Your task to perform on an android device: clear all cookies in the chrome app Image 0: 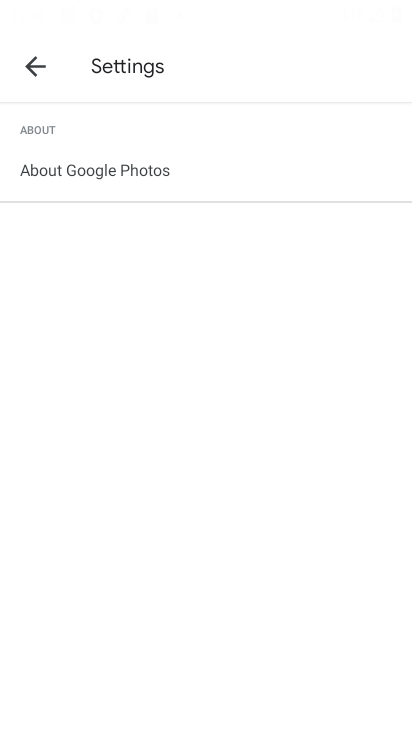
Step 0: press home button
Your task to perform on an android device: clear all cookies in the chrome app Image 1: 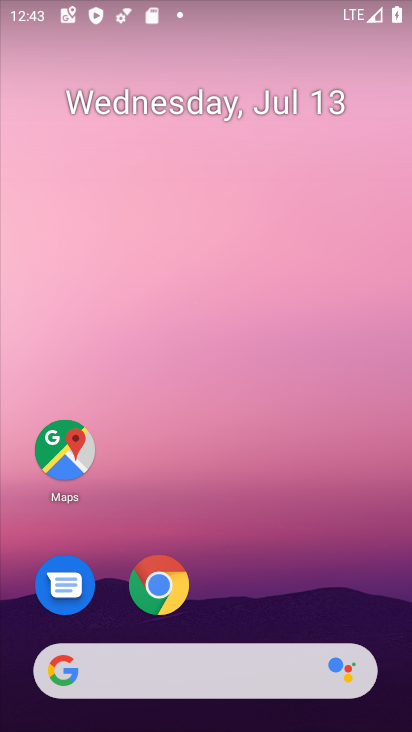
Step 1: click (159, 583)
Your task to perform on an android device: clear all cookies in the chrome app Image 2: 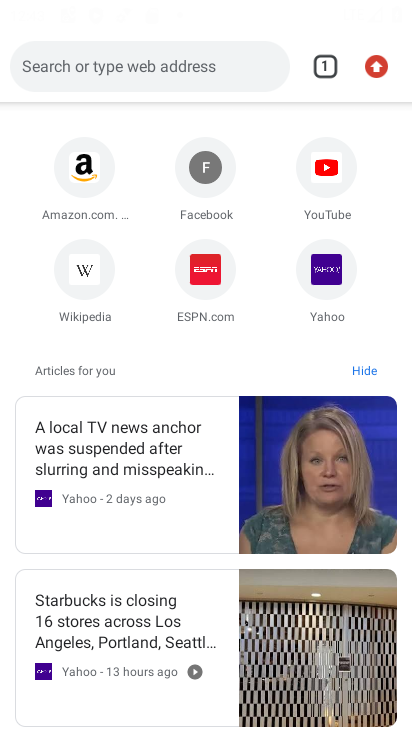
Step 2: click (373, 57)
Your task to perform on an android device: clear all cookies in the chrome app Image 3: 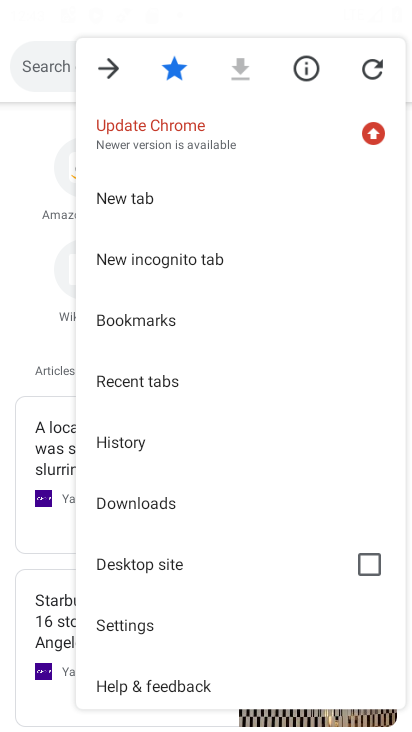
Step 3: click (120, 447)
Your task to perform on an android device: clear all cookies in the chrome app Image 4: 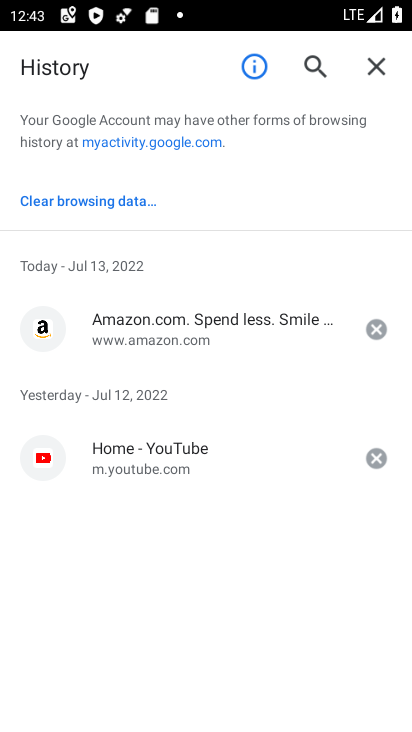
Step 4: click (65, 207)
Your task to perform on an android device: clear all cookies in the chrome app Image 5: 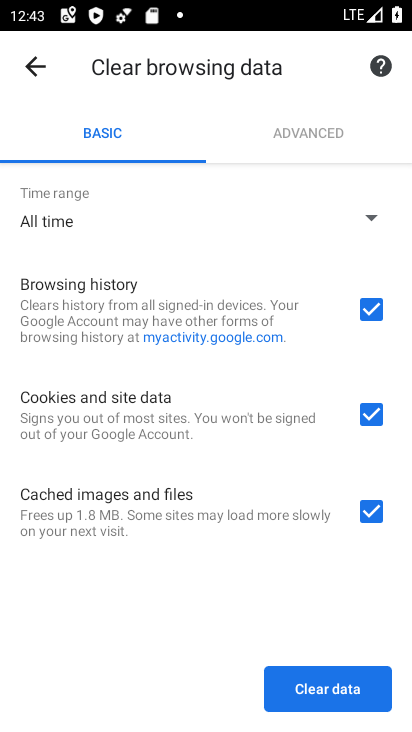
Step 5: click (376, 304)
Your task to perform on an android device: clear all cookies in the chrome app Image 6: 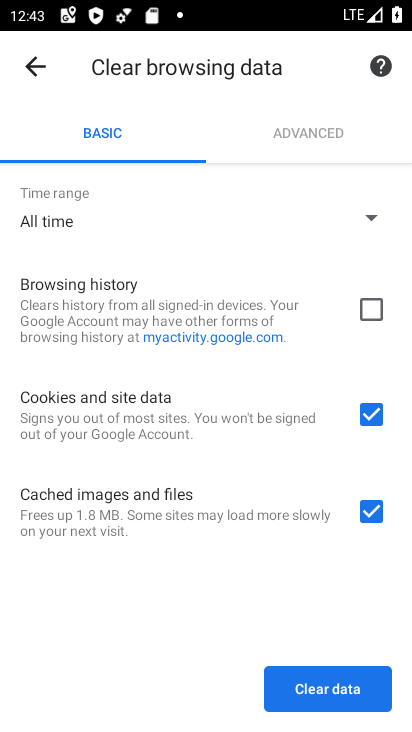
Step 6: click (370, 518)
Your task to perform on an android device: clear all cookies in the chrome app Image 7: 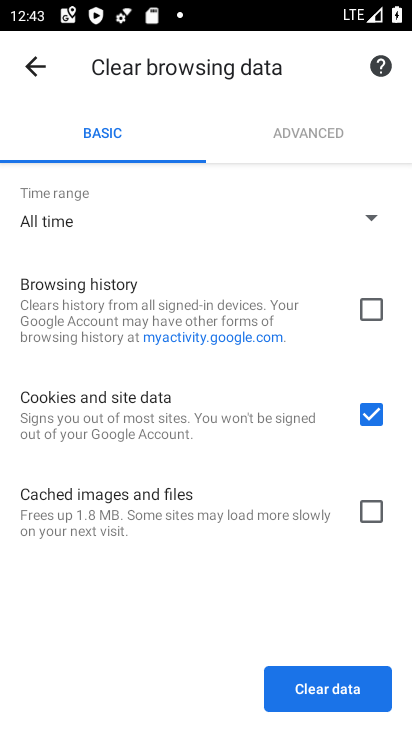
Step 7: click (280, 676)
Your task to perform on an android device: clear all cookies in the chrome app Image 8: 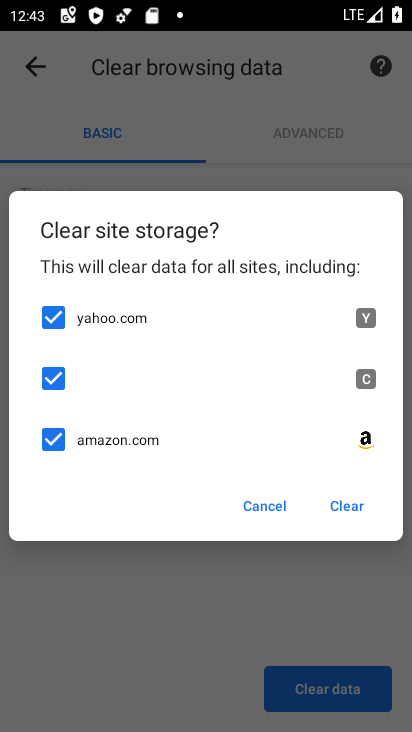
Step 8: click (344, 515)
Your task to perform on an android device: clear all cookies in the chrome app Image 9: 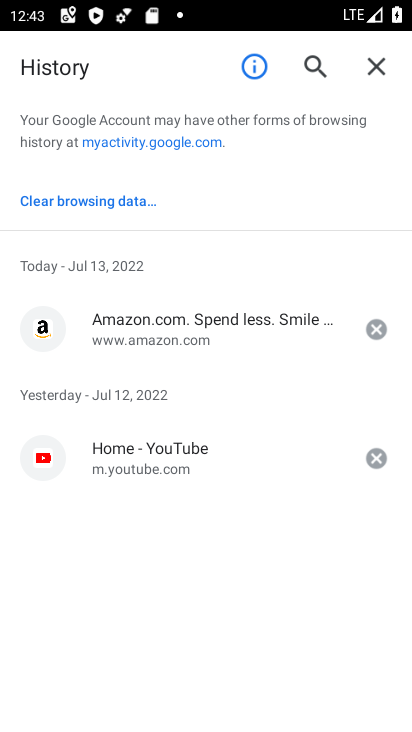
Step 9: task complete